Your task to perform on an android device: search for starred emails in the gmail app Image 0: 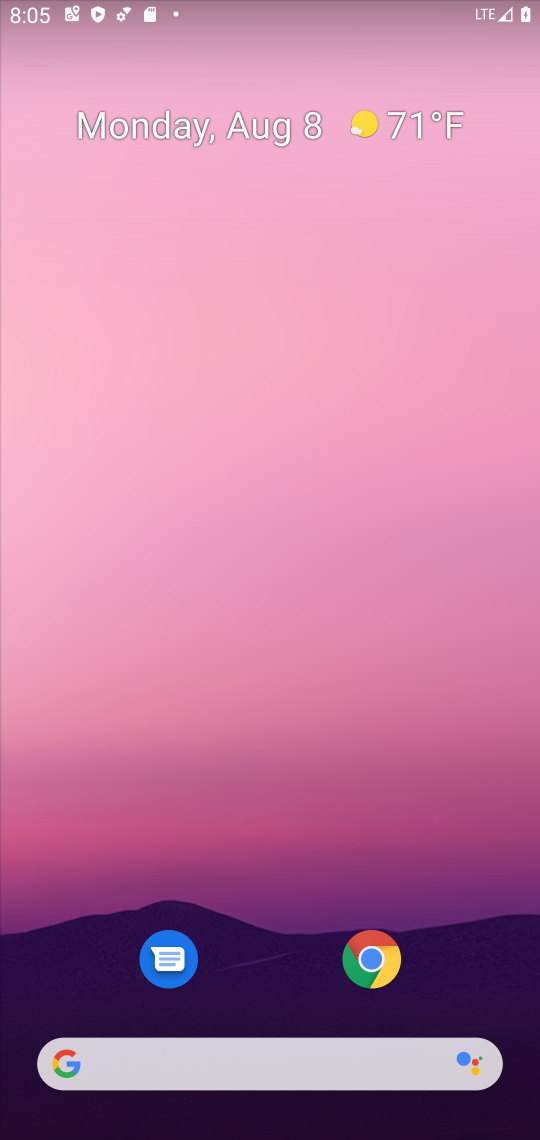
Step 0: drag from (453, 928) to (320, 60)
Your task to perform on an android device: search for starred emails in the gmail app Image 1: 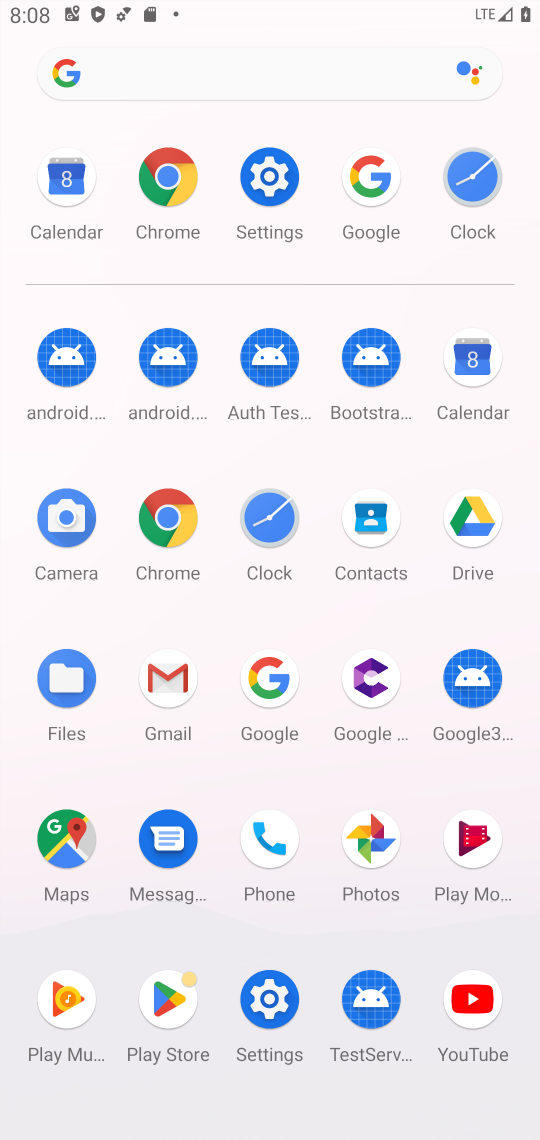
Step 1: click (186, 678)
Your task to perform on an android device: search for starred emails in the gmail app Image 2: 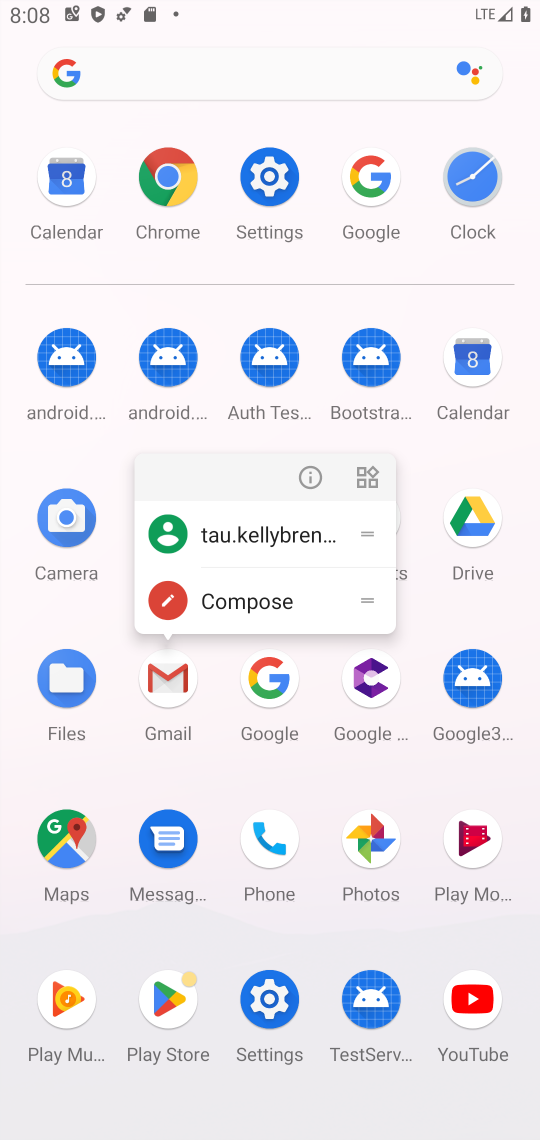
Step 2: click (186, 678)
Your task to perform on an android device: search for starred emails in the gmail app Image 3: 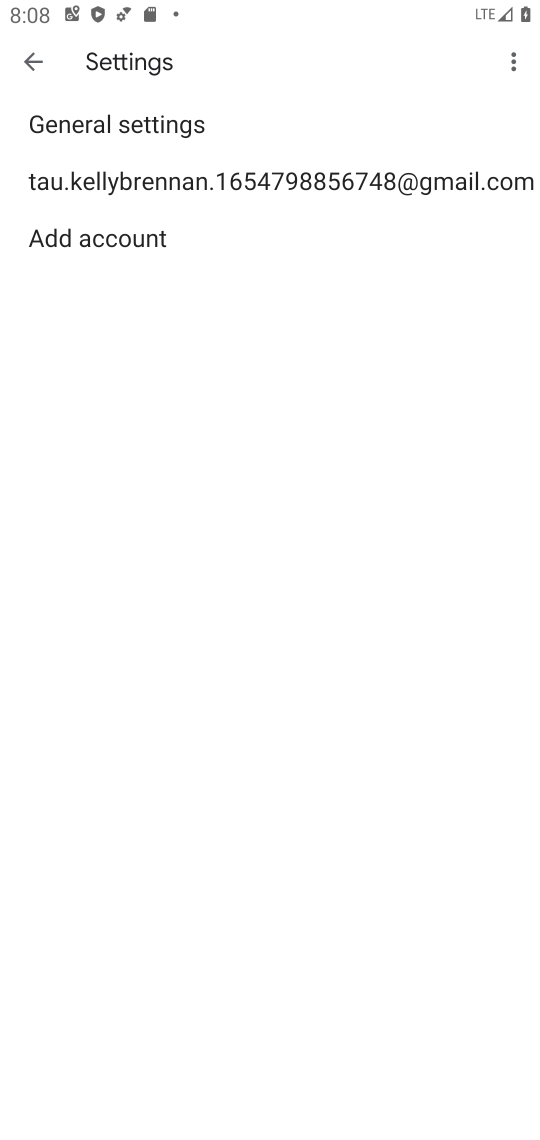
Step 3: press back button
Your task to perform on an android device: search for starred emails in the gmail app Image 4: 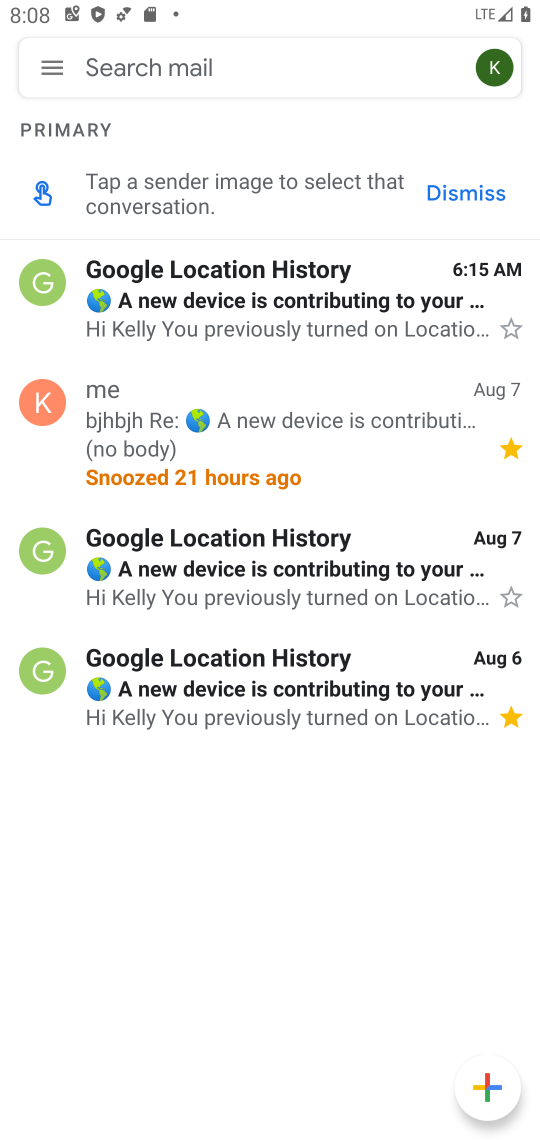
Step 4: click (47, 66)
Your task to perform on an android device: search for starred emails in the gmail app Image 5: 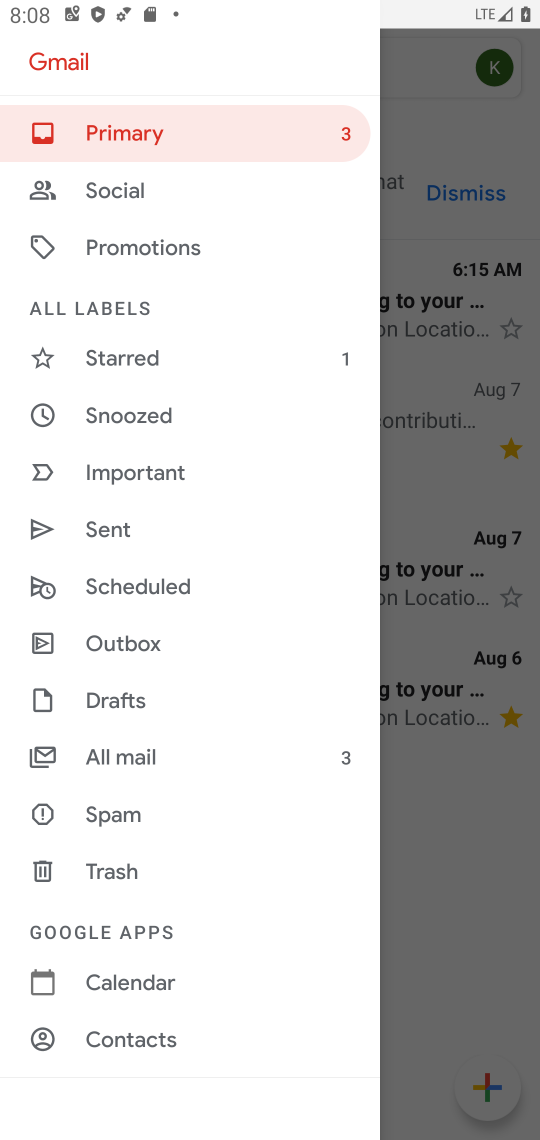
Step 5: click (163, 352)
Your task to perform on an android device: search for starred emails in the gmail app Image 6: 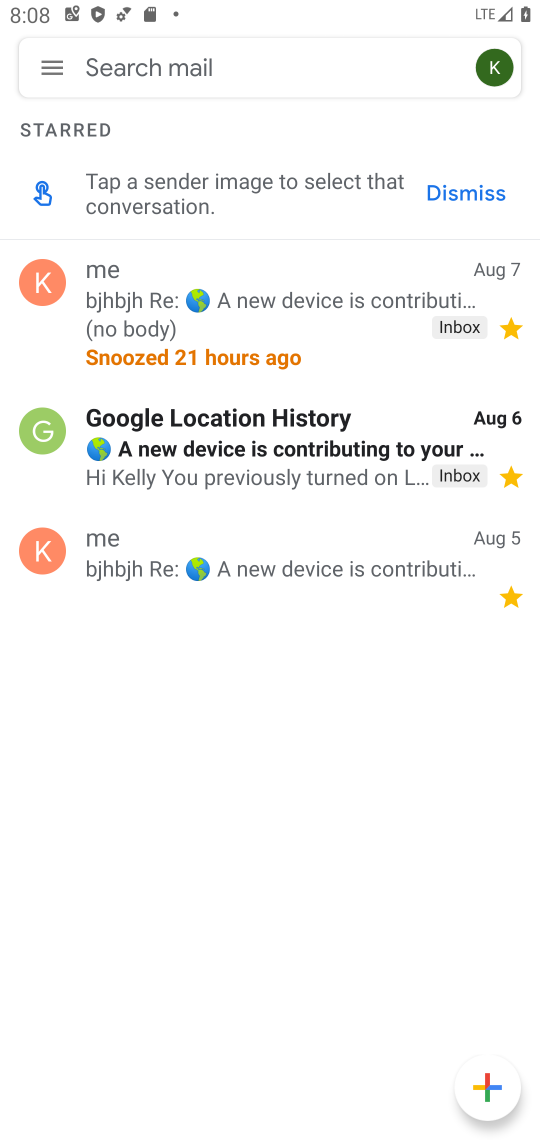
Step 6: task complete